Your task to perform on an android device: Clear the cart on bestbuy. Search for asus zenbook on bestbuy, select the first entry, add it to the cart, then select checkout. Image 0: 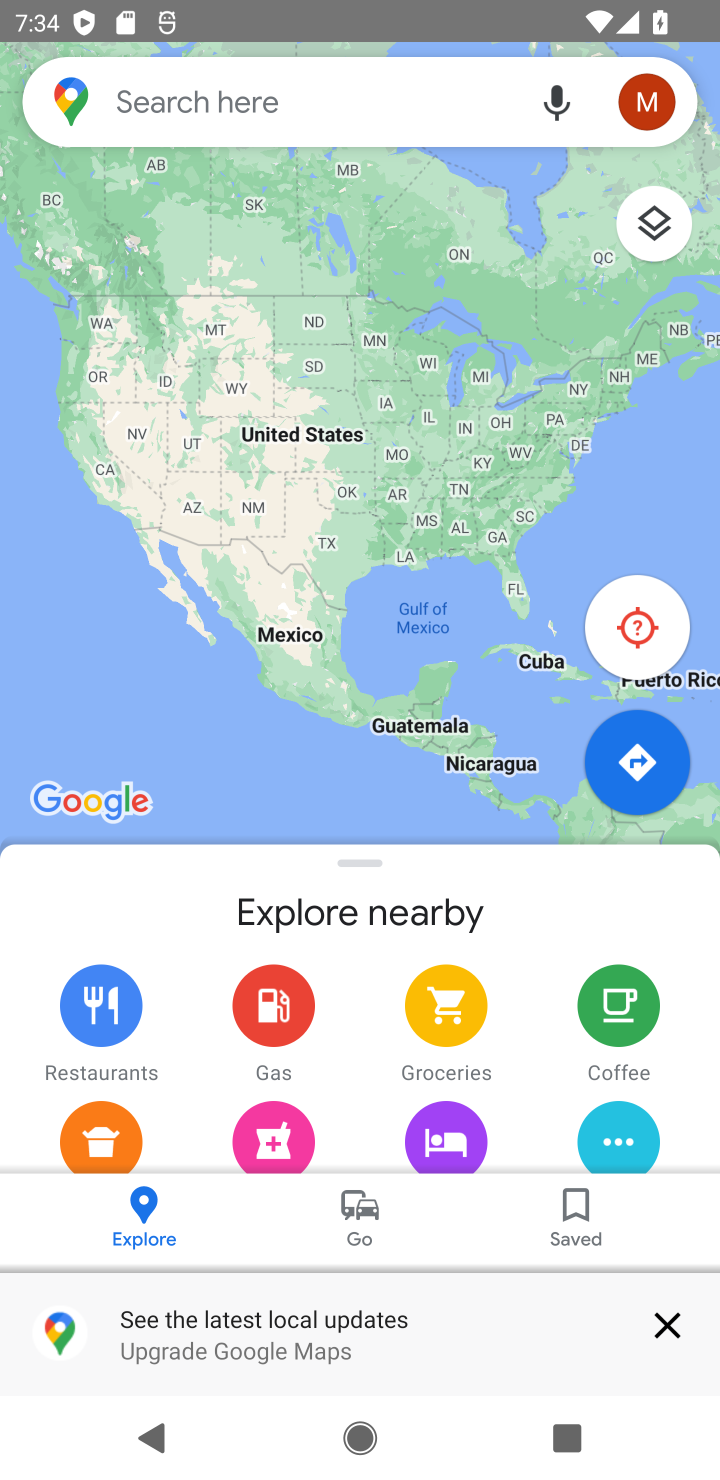
Step 0: press home button
Your task to perform on an android device: Clear the cart on bestbuy. Search for asus zenbook on bestbuy, select the first entry, add it to the cart, then select checkout. Image 1: 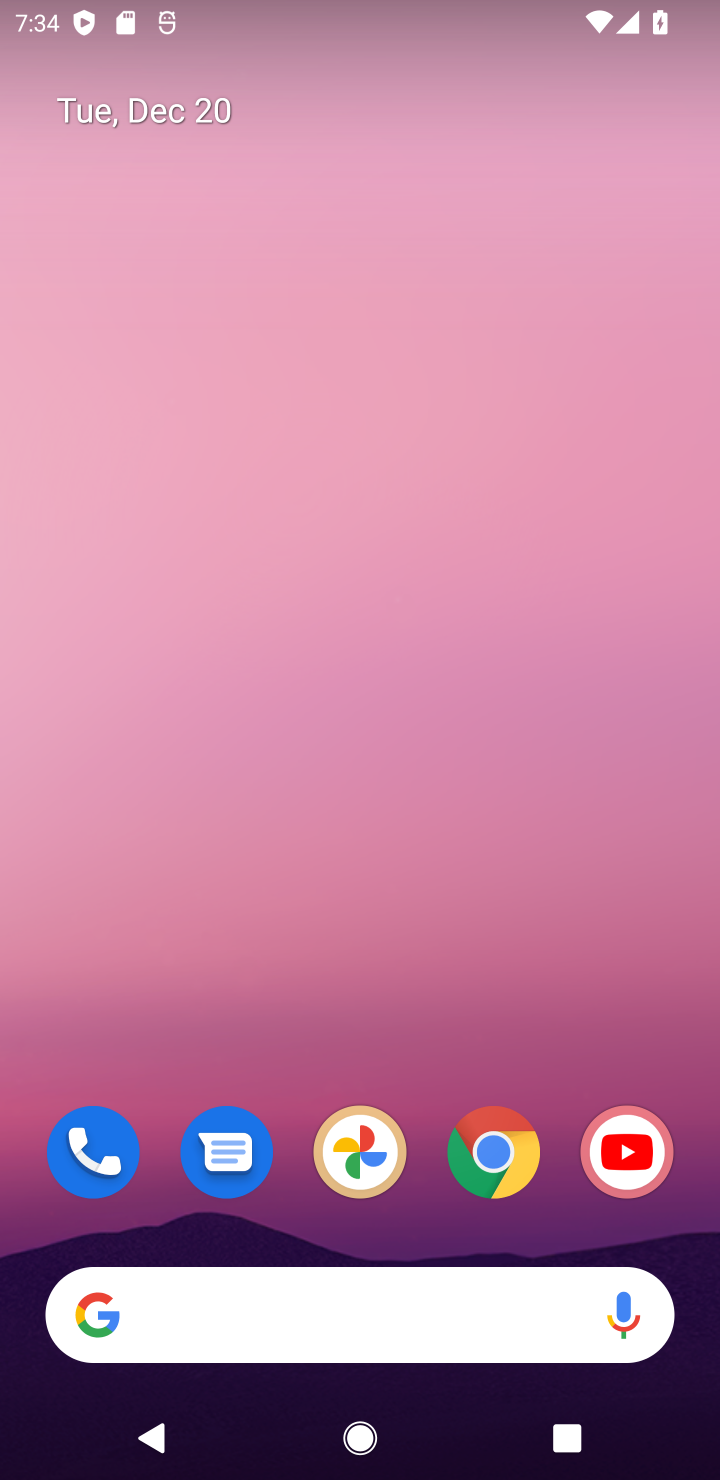
Step 1: click (490, 1172)
Your task to perform on an android device: Clear the cart on bestbuy. Search for asus zenbook on bestbuy, select the first entry, add it to the cart, then select checkout. Image 2: 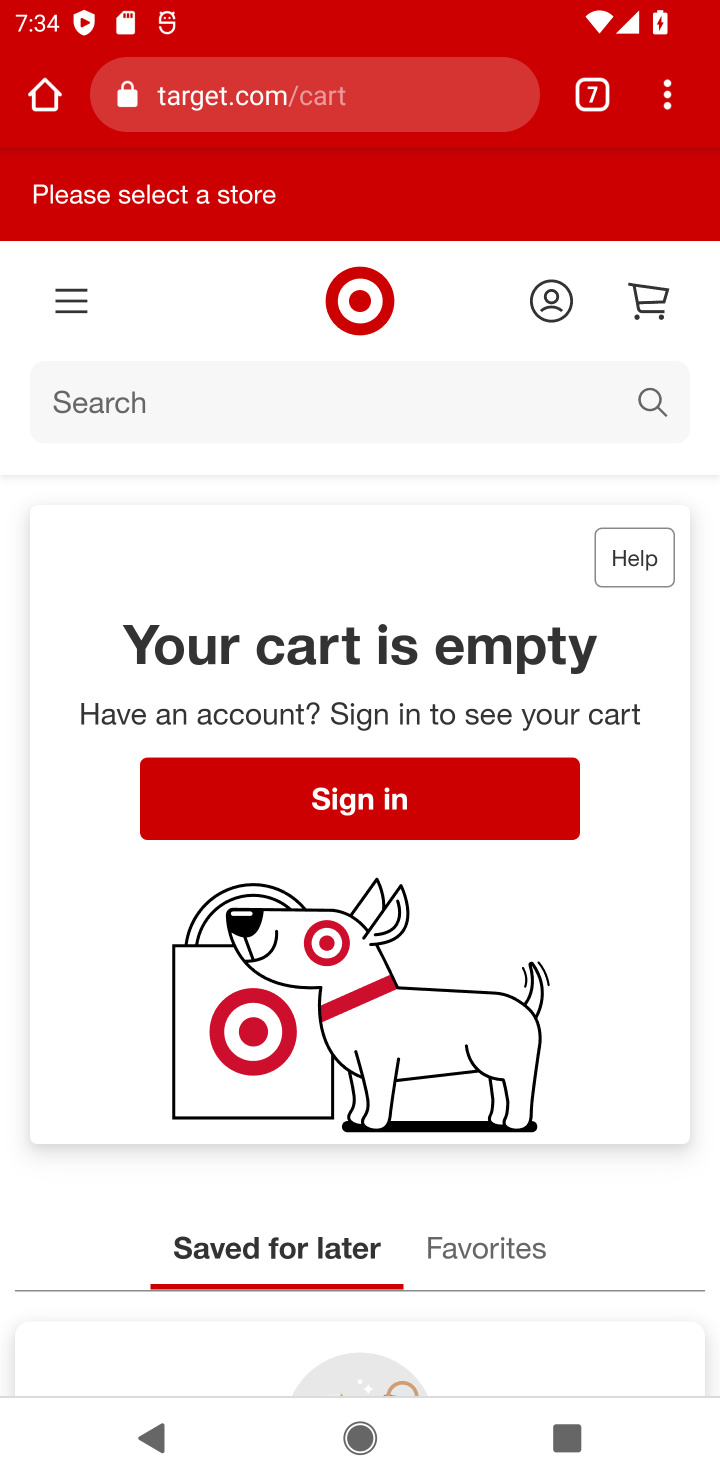
Step 2: click (592, 88)
Your task to perform on an android device: Clear the cart on bestbuy. Search for asus zenbook on bestbuy, select the first entry, add it to the cart, then select checkout. Image 3: 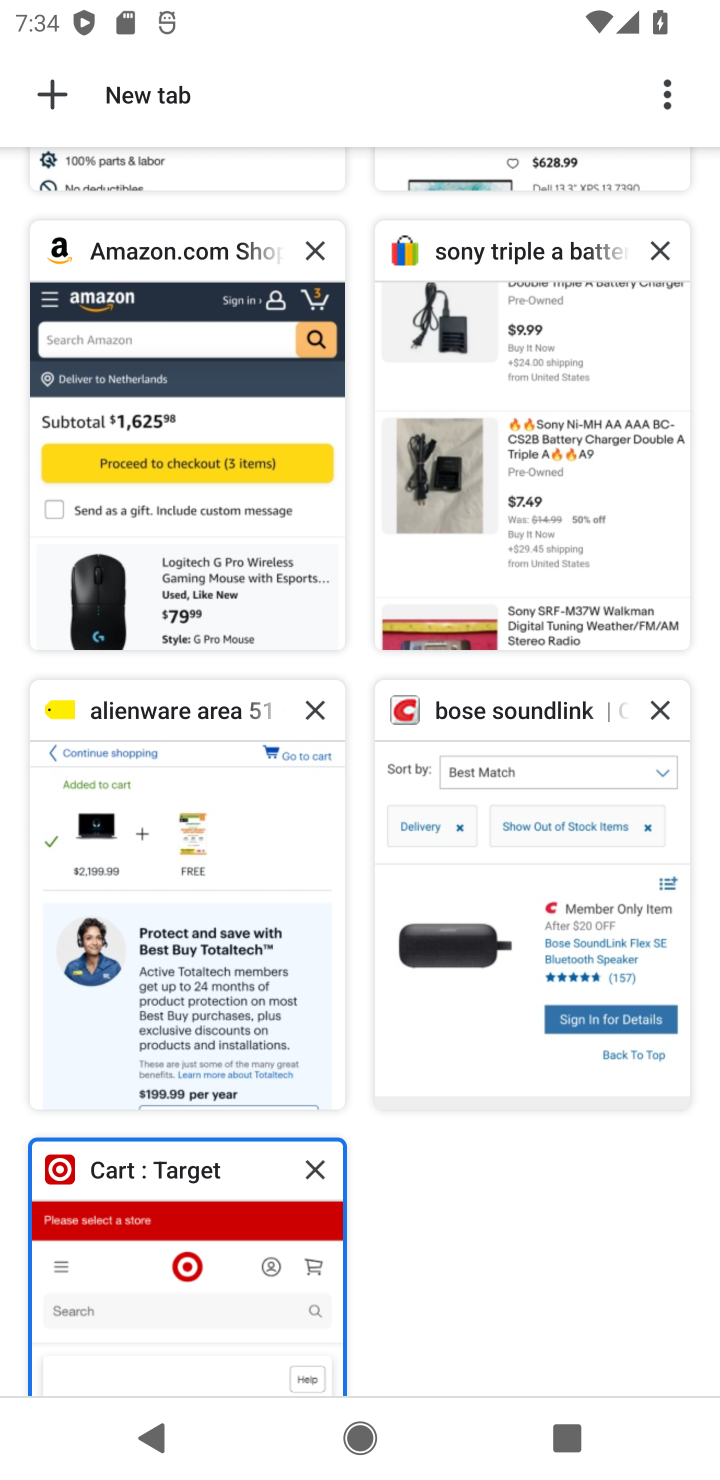
Step 3: click (138, 787)
Your task to perform on an android device: Clear the cart on bestbuy. Search for asus zenbook on bestbuy, select the first entry, add it to the cart, then select checkout. Image 4: 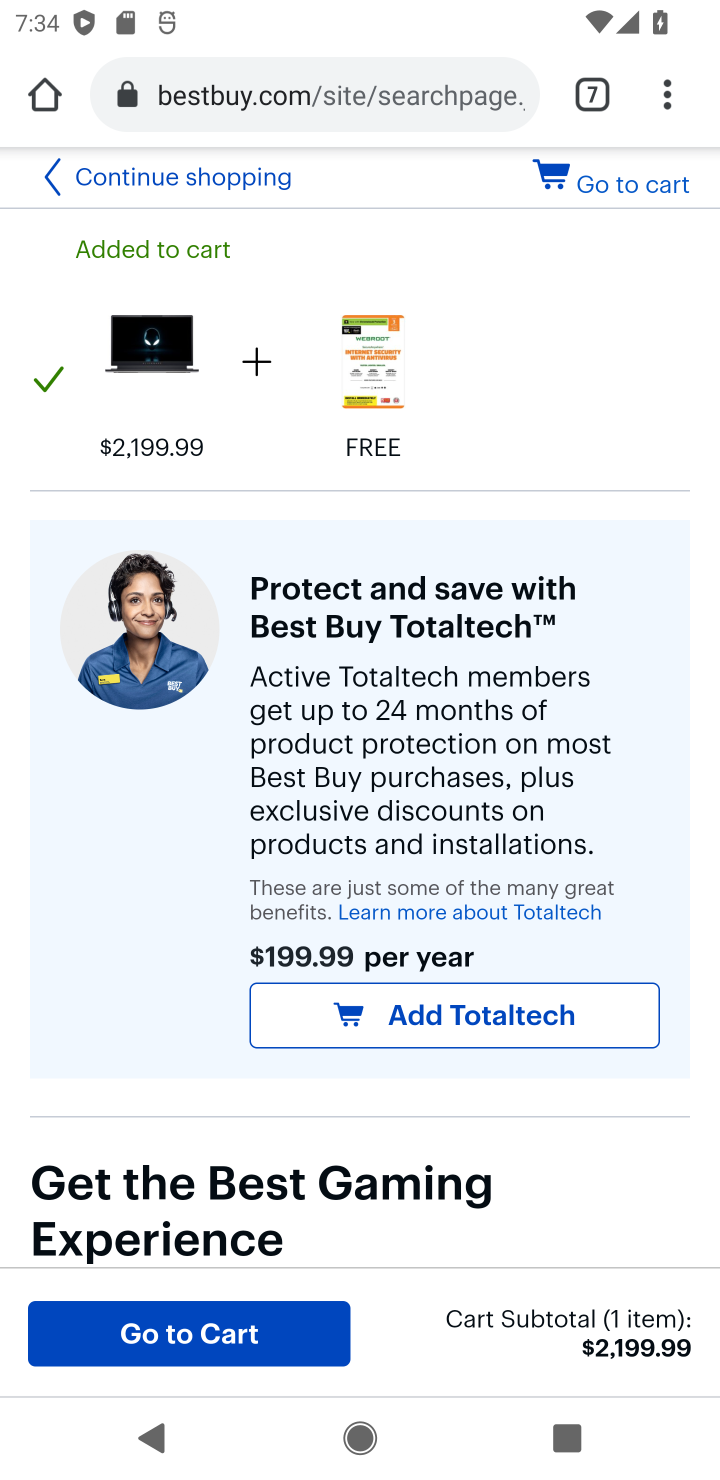
Step 4: drag from (505, 250) to (373, 859)
Your task to perform on an android device: Clear the cart on bestbuy. Search for asus zenbook on bestbuy, select the first entry, add it to the cart, then select checkout. Image 5: 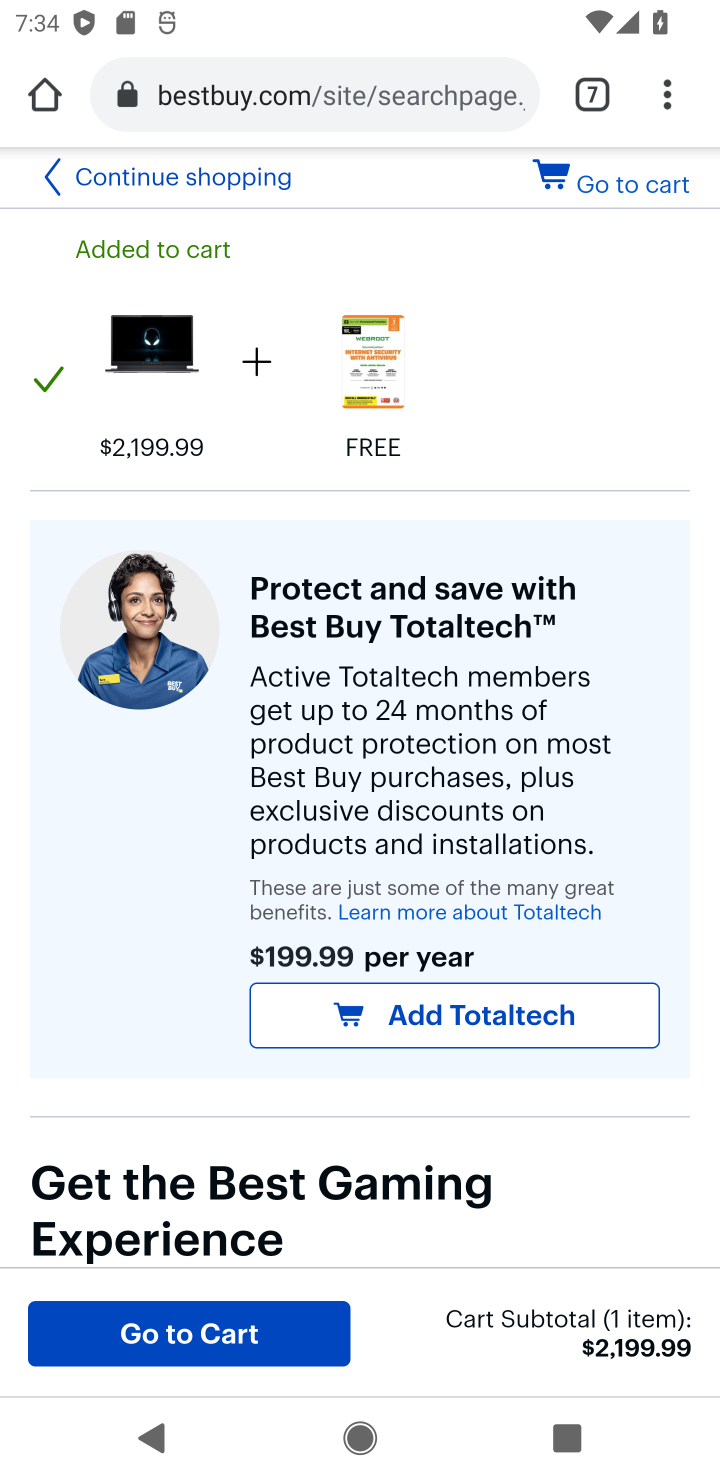
Step 5: click (213, 171)
Your task to perform on an android device: Clear the cart on bestbuy. Search for asus zenbook on bestbuy, select the first entry, add it to the cart, then select checkout. Image 6: 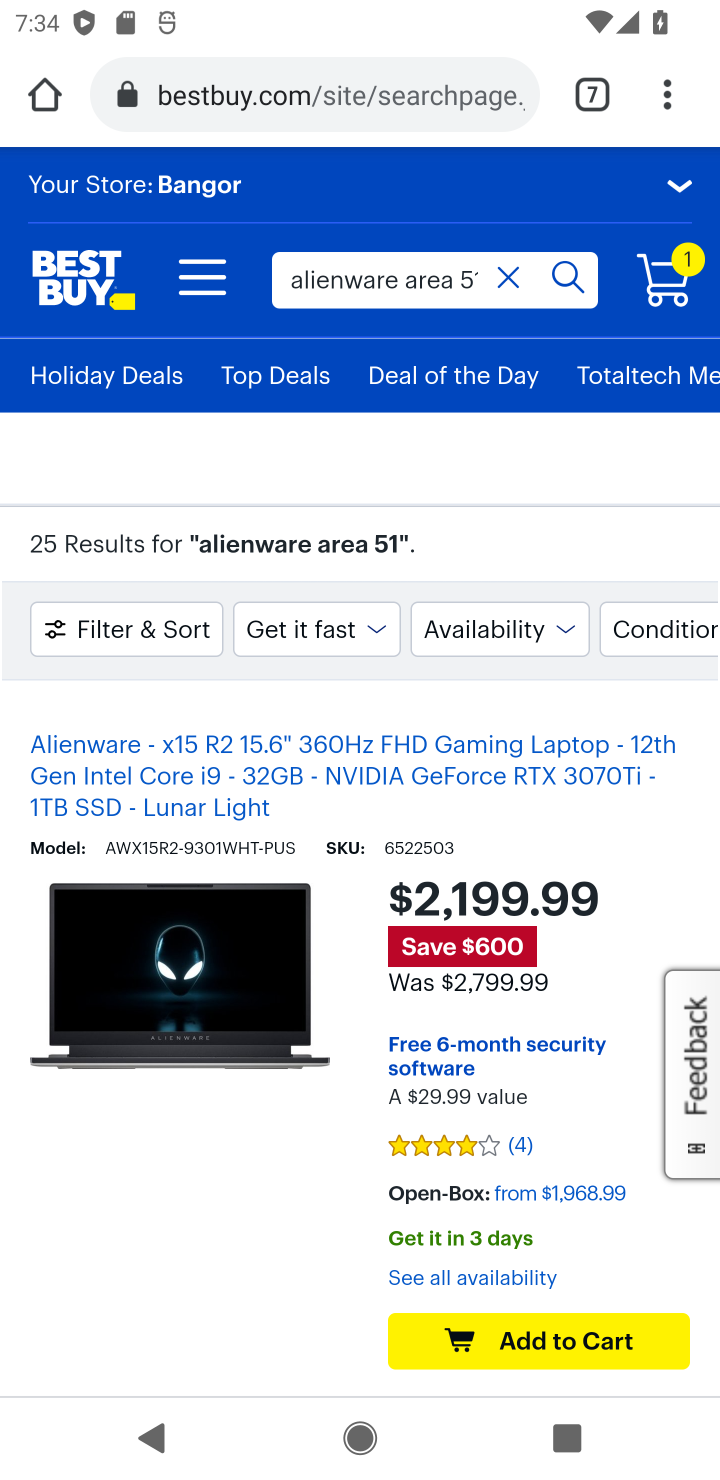
Step 6: click (507, 280)
Your task to perform on an android device: Clear the cart on bestbuy. Search for asus zenbook on bestbuy, select the first entry, add it to the cart, then select checkout. Image 7: 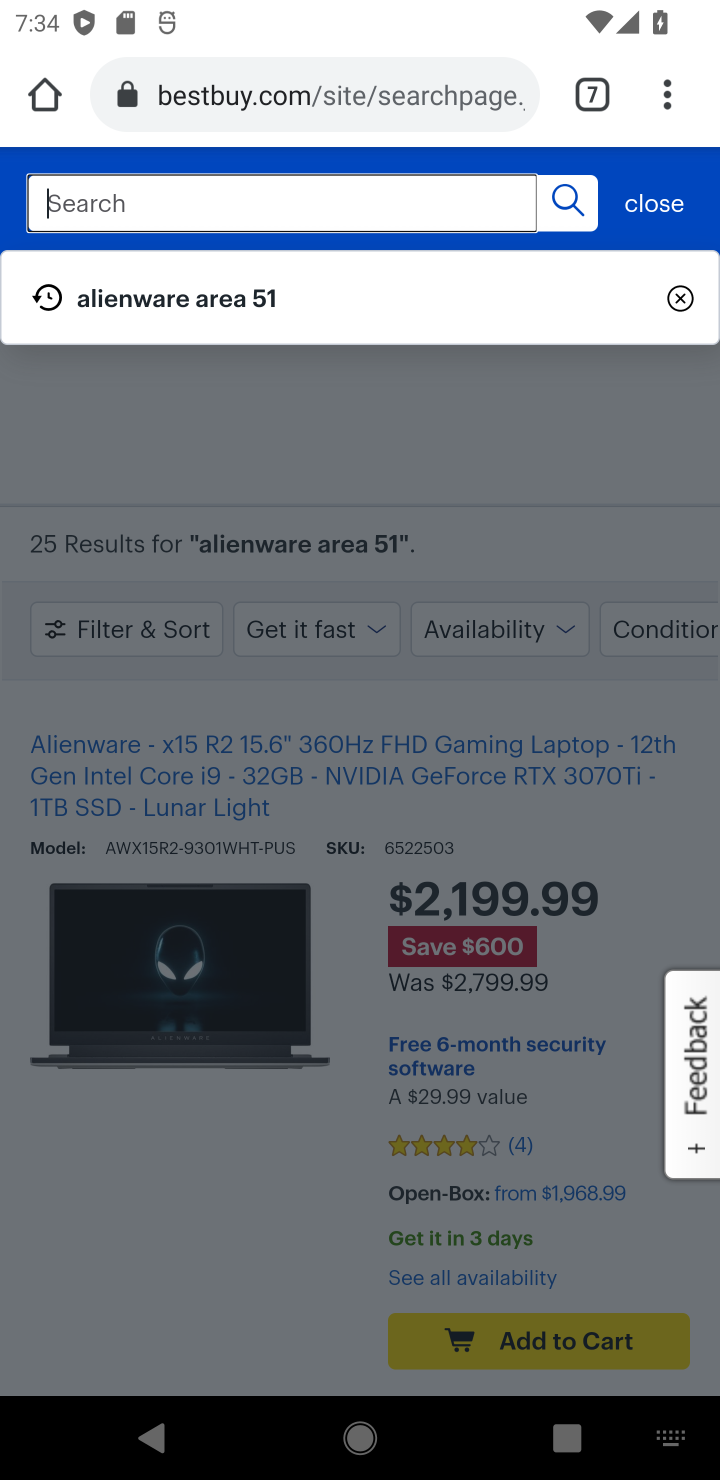
Step 7: type "asus zenbook"
Your task to perform on an android device: Clear the cart on bestbuy. Search for asus zenbook on bestbuy, select the first entry, add it to the cart, then select checkout. Image 8: 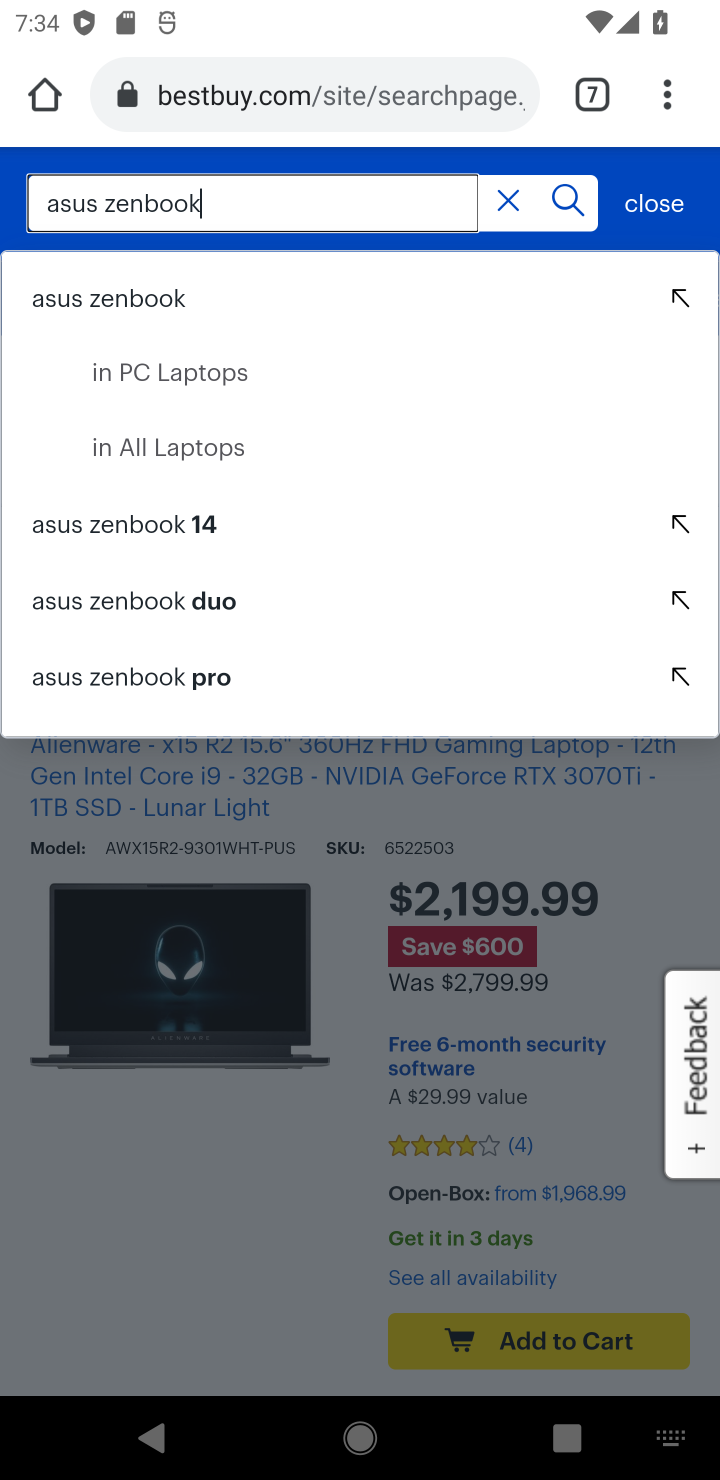
Step 8: click (154, 301)
Your task to perform on an android device: Clear the cart on bestbuy. Search for asus zenbook on bestbuy, select the first entry, add it to the cart, then select checkout. Image 9: 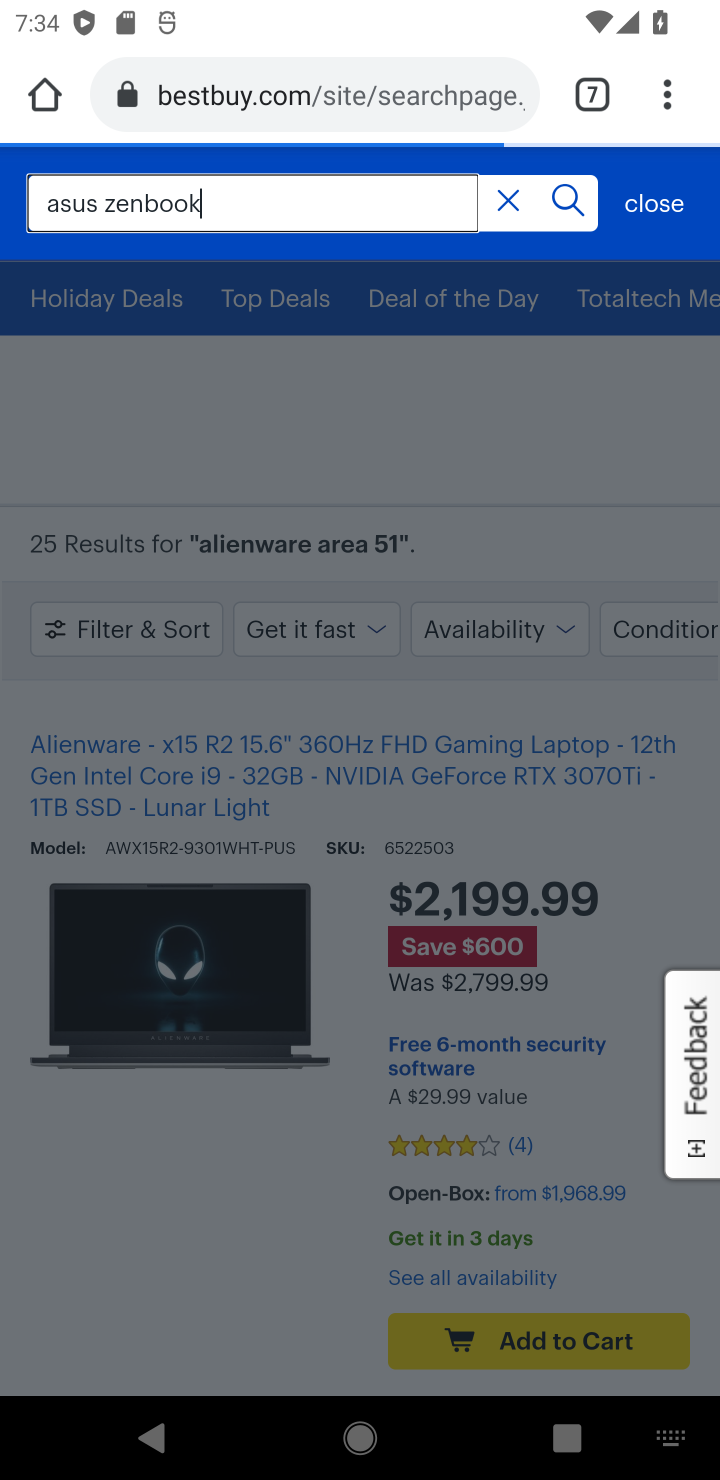
Step 9: click (561, 198)
Your task to perform on an android device: Clear the cart on bestbuy. Search for asus zenbook on bestbuy, select the first entry, add it to the cart, then select checkout. Image 10: 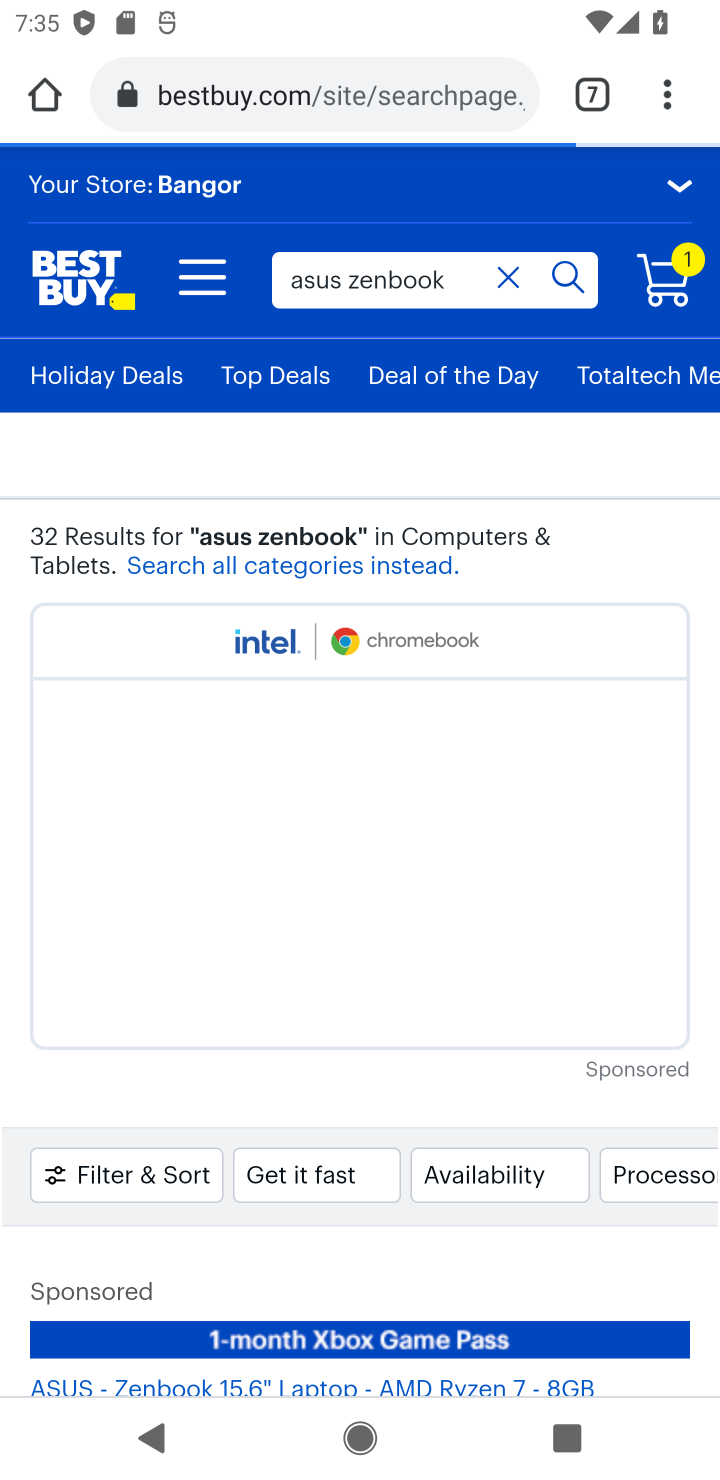
Step 10: drag from (376, 1288) to (421, 806)
Your task to perform on an android device: Clear the cart on bestbuy. Search for asus zenbook on bestbuy, select the first entry, add it to the cart, then select checkout. Image 11: 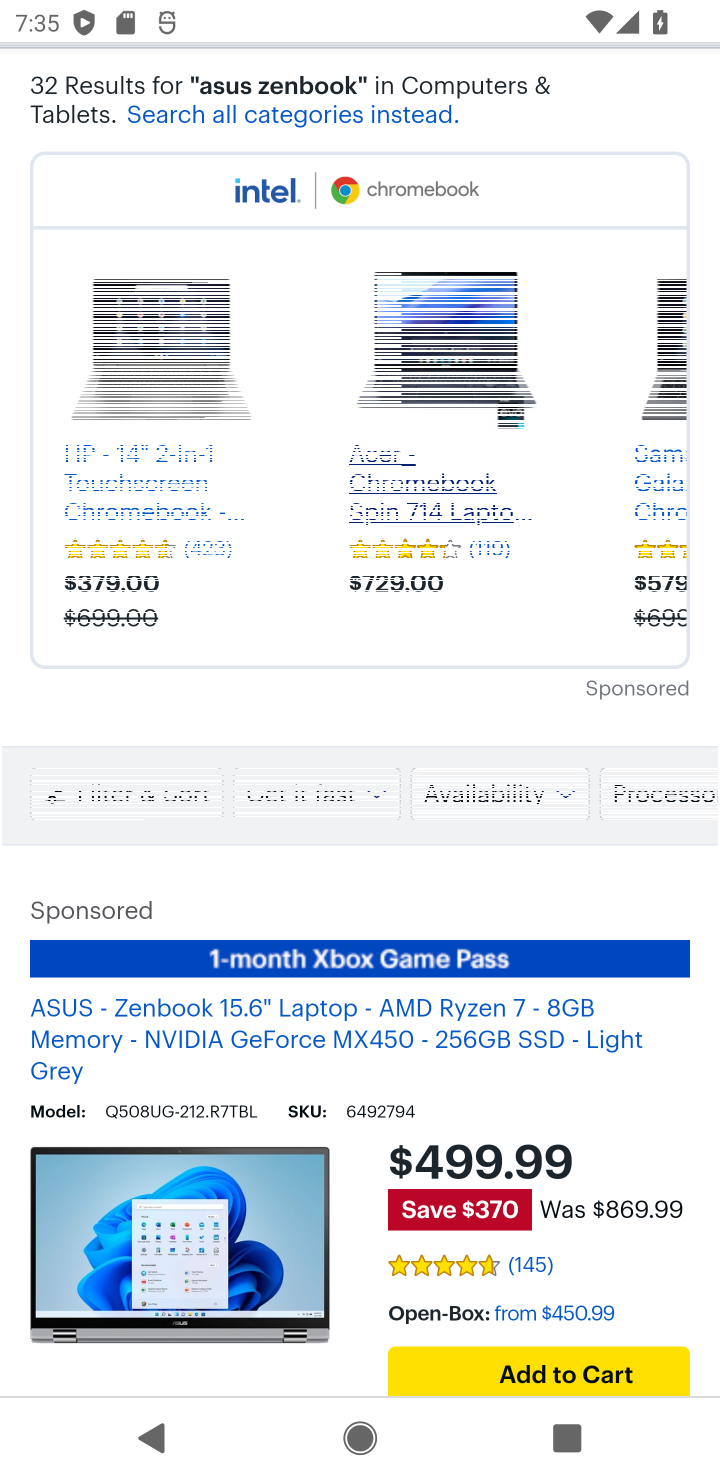
Step 11: click (512, 1366)
Your task to perform on an android device: Clear the cart on bestbuy. Search for asus zenbook on bestbuy, select the first entry, add it to the cart, then select checkout. Image 12: 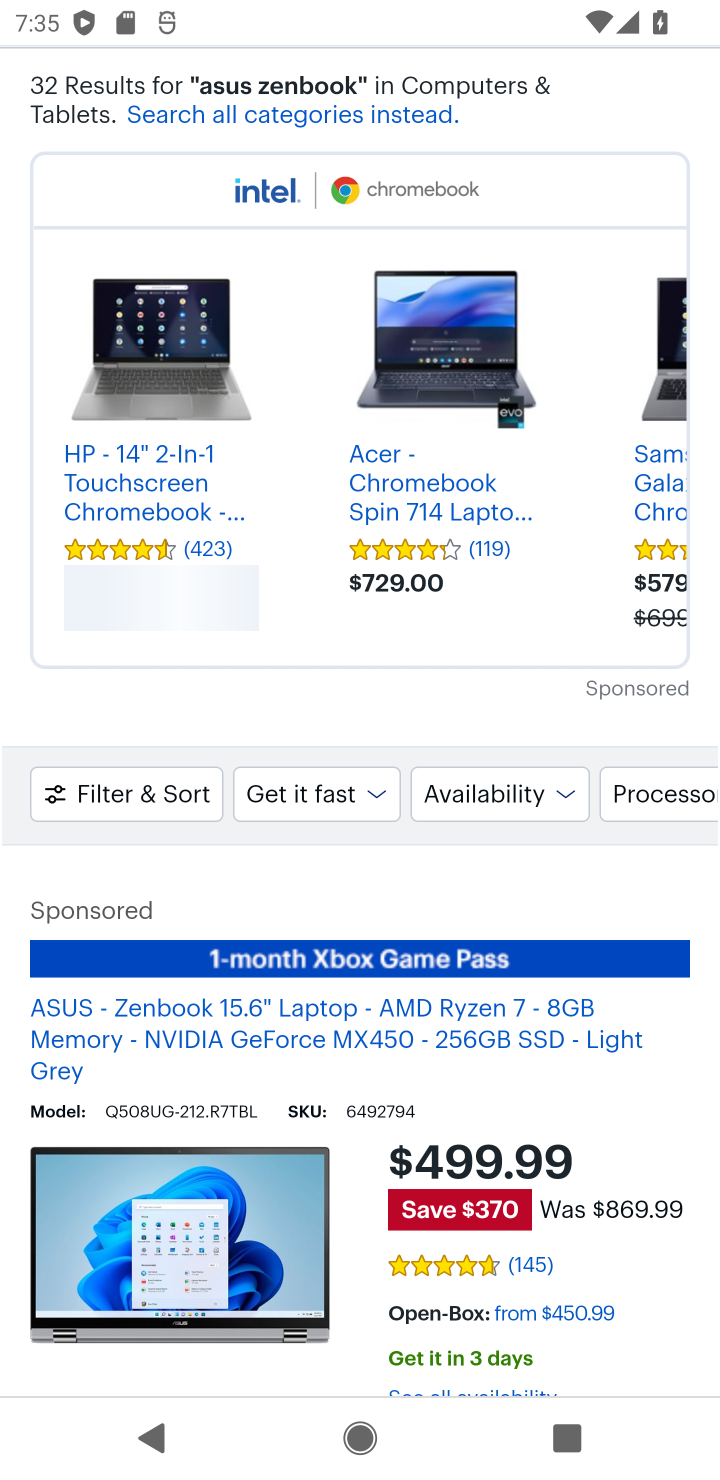
Step 12: drag from (431, 1094) to (511, 607)
Your task to perform on an android device: Clear the cart on bestbuy. Search for asus zenbook on bestbuy, select the first entry, add it to the cart, then select checkout. Image 13: 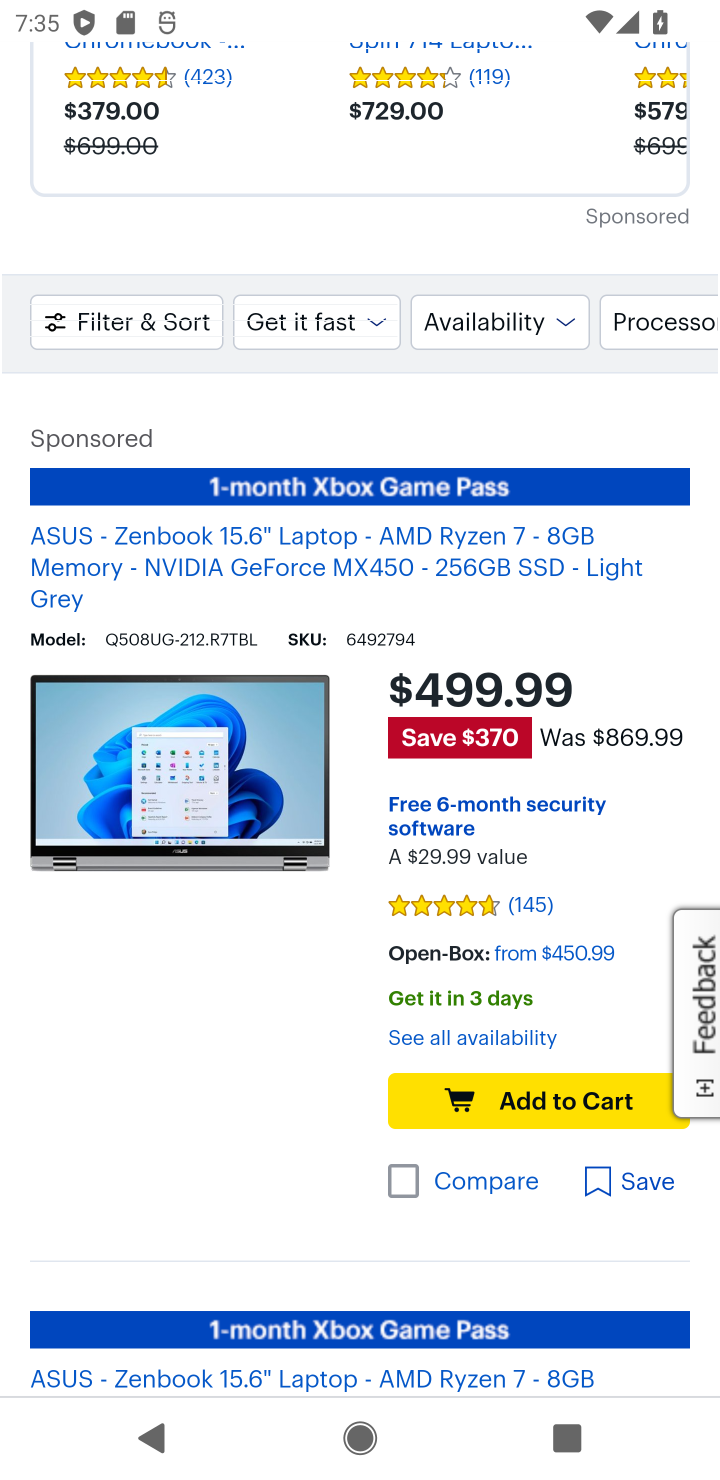
Step 13: click (551, 1108)
Your task to perform on an android device: Clear the cart on bestbuy. Search for asus zenbook on bestbuy, select the first entry, add it to the cart, then select checkout. Image 14: 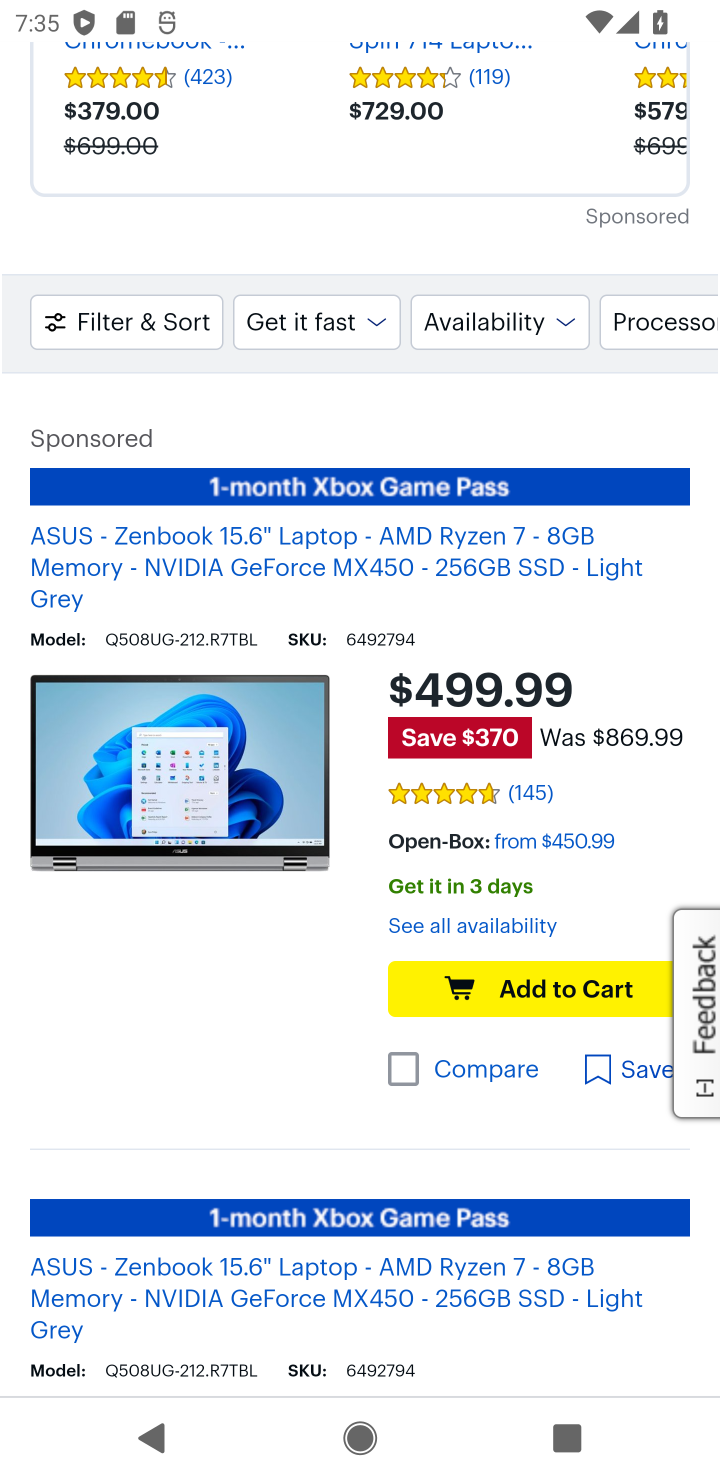
Step 14: drag from (584, 198) to (400, 1280)
Your task to perform on an android device: Clear the cart on bestbuy. Search for asus zenbook on bestbuy, select the first entry, add it to the cart, then select checkout. Image 15: 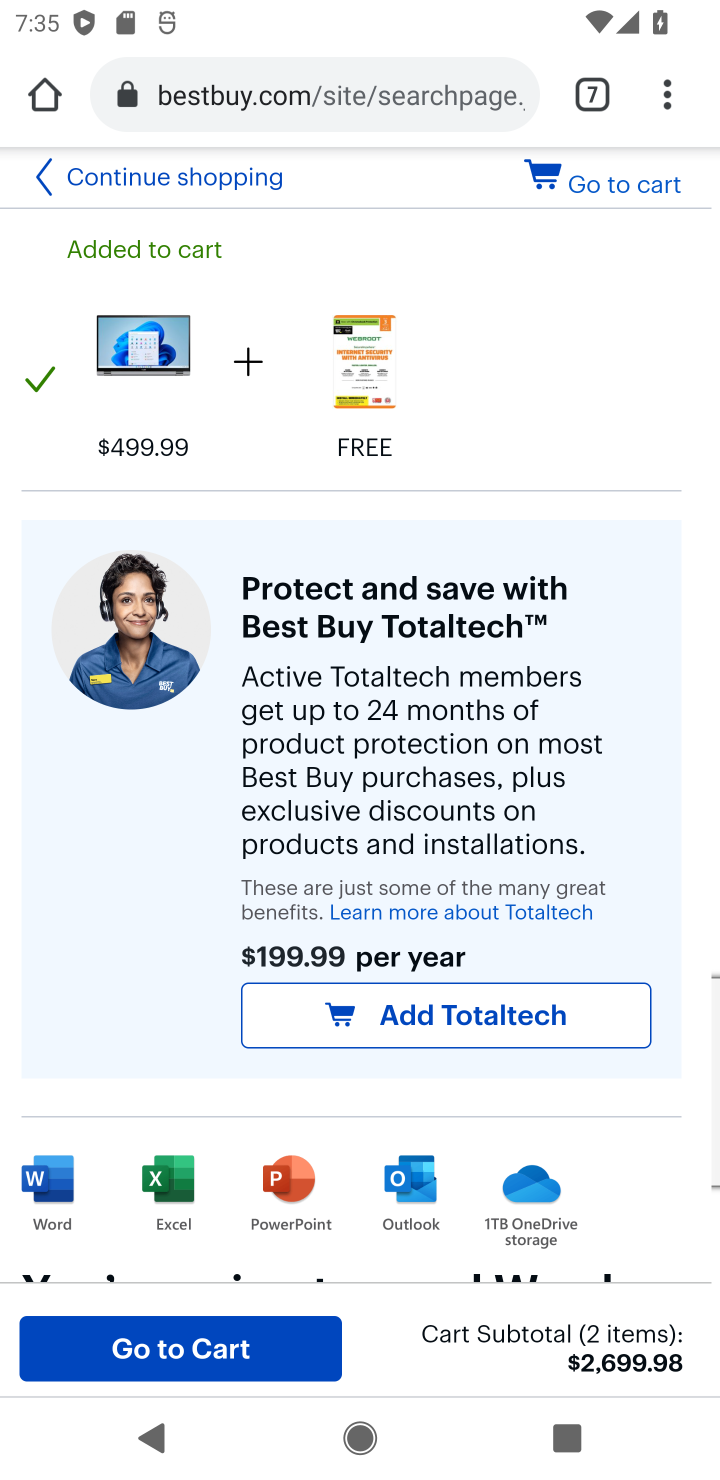
Step 15: click (607, 185)
Your task to perform on an android device: Clear the cart on bestbuy. Search for asus zenbook on bestbuy, select the first entry, add it to the cart, then select checkout. Image 16: 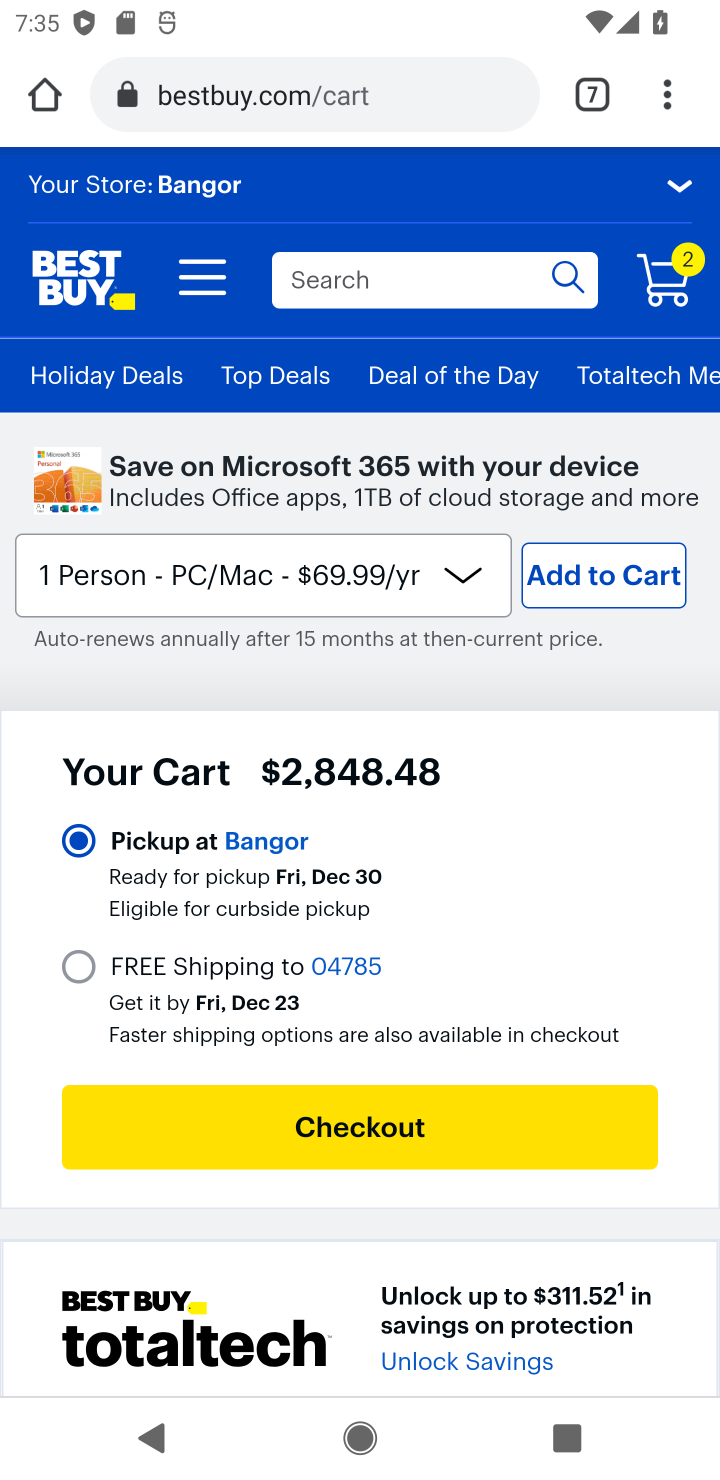
Step 16: task complete